Your task to perform on an android device: Open the web browser Image 0: 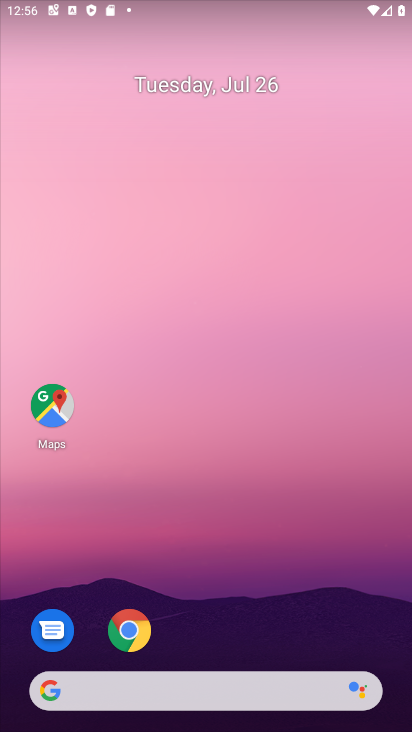
Step 0: click (125, 632)
Your task to perform on an android device: Open the web browser Image 1: 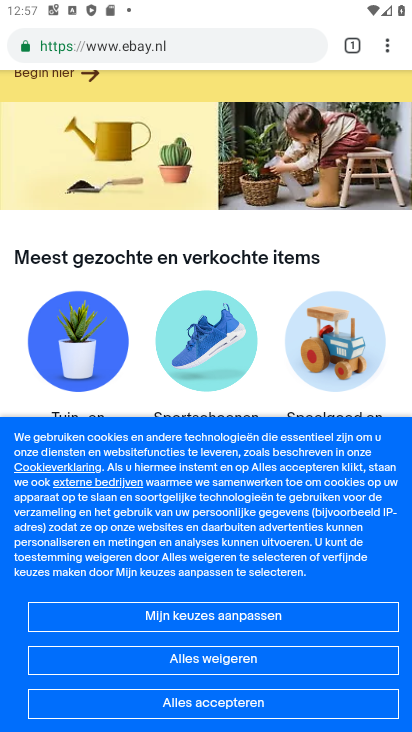
Step 1: task complete